Your task to perform on an android device: all mails in gmail Image 0: 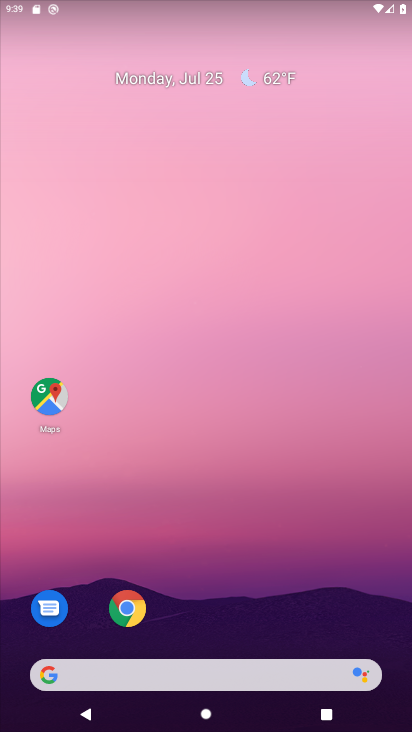
Step 0: press home button
Your task to perform on an android device: all mails in gmail Image 1: 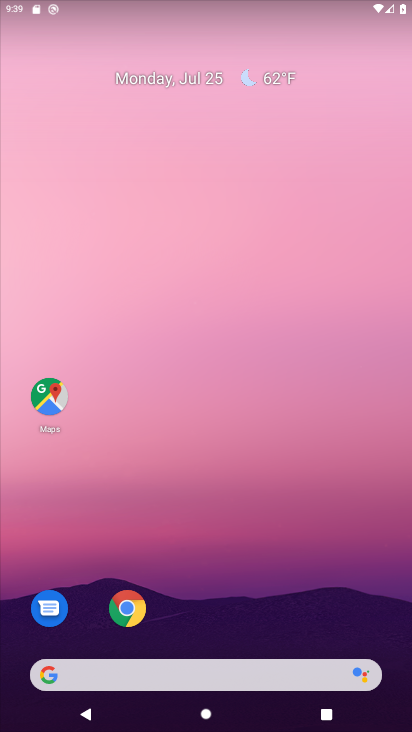
Step 1: drag from (222, 640) to (258, 6)
Your task to perform on an android device: all mails in gmail Image 2: 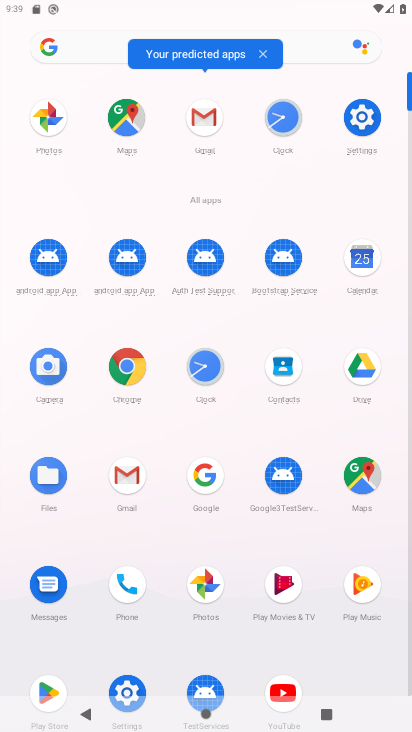
Step 2: click (204, 110)
Your task to perform on an android device: all mails in gmail Image 3: 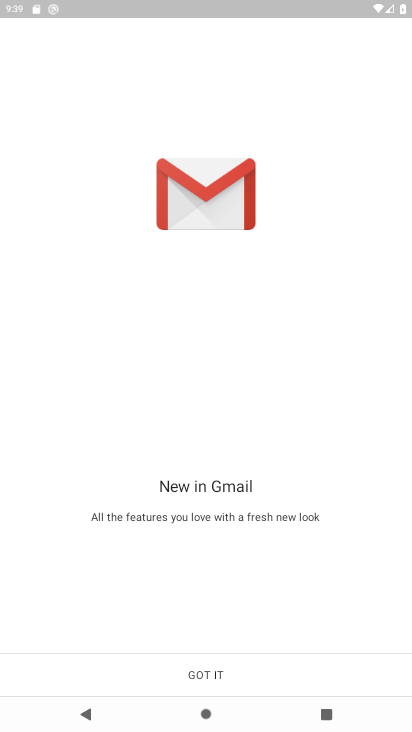
Step 3: click (204, 667)
Your task to perform on an android device: all mails in gmail Image 4: 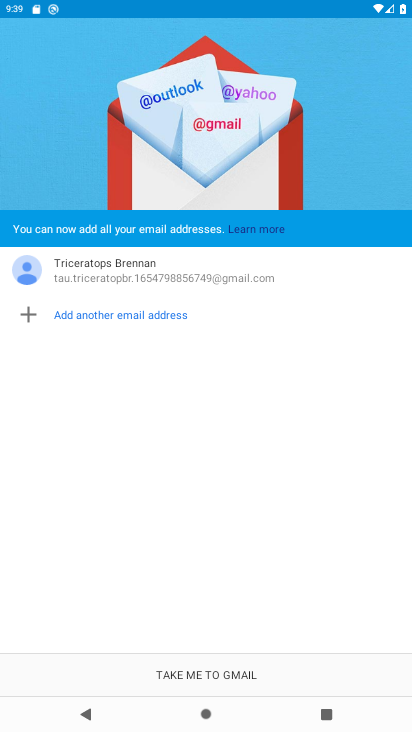
Step 4: click (217, 672)
Your task to perform on an android device: all mails in gmail Image 5: 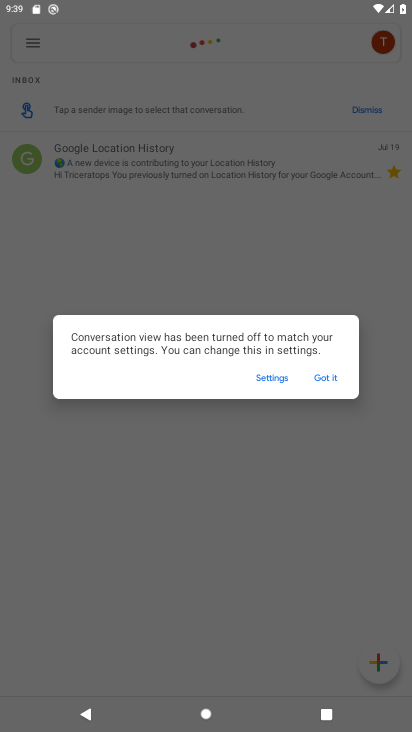
Step 5: click (328, 377)
Your task to perform on an android device: all mails in gmail Image 6: 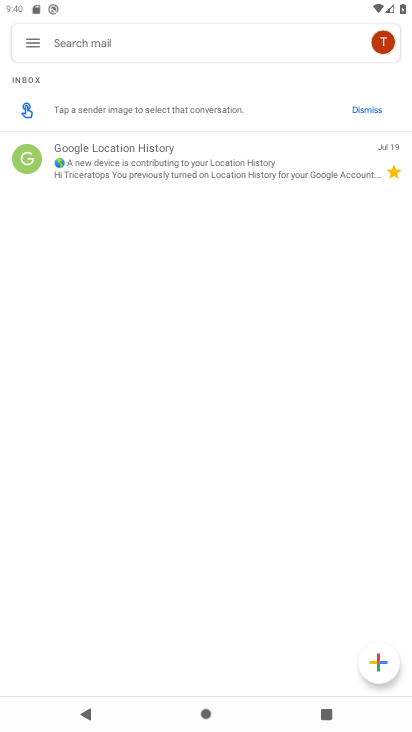
Step 6: click (32, 33)
Your task to perform on an android device: all mails in gmail Image 7: 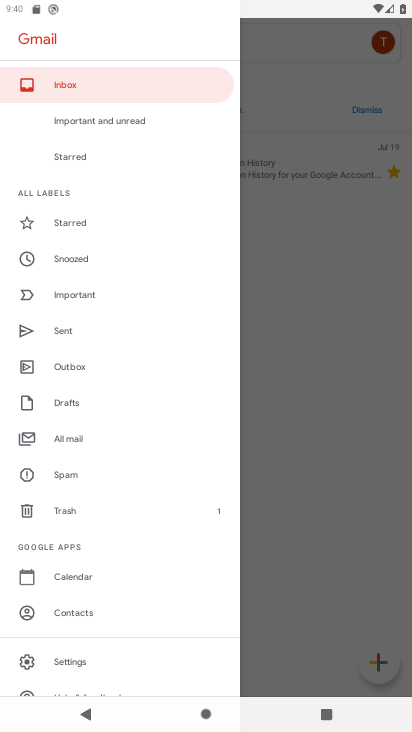
Step 7: click (90, 434)
Your task to perform on an android device: all mails in gmail Image 8: 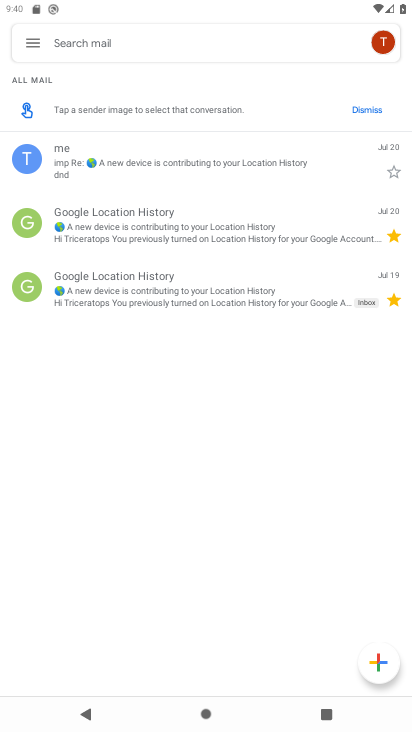
Step 8: task complete